Your task to perform on an android device: add a label to a message in the gmail app Image 0: 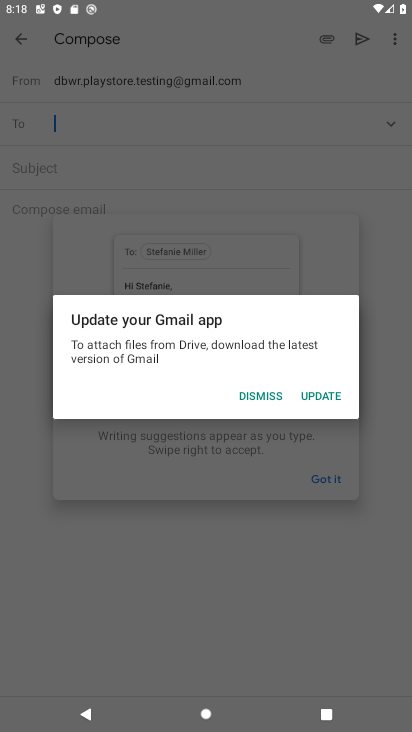
Step 0: press back button
Your task to perform on an android device: add a label to a message in the gmail app Image 1: 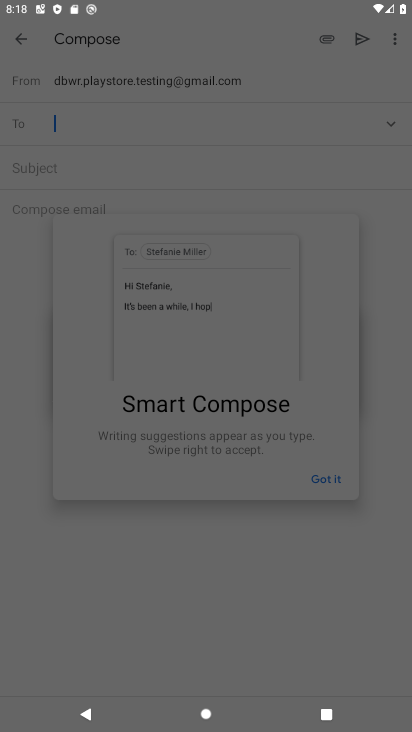
Step 1: press back button
Your task to perform on an android device: add a label to a message in the gmail app Image 2: 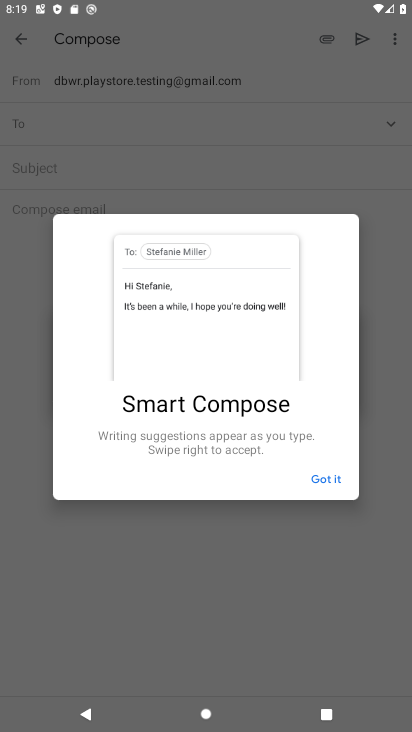
Step 2: press home button
Your task to perform on an android device: add a label to a message in the gmail app Image 3: 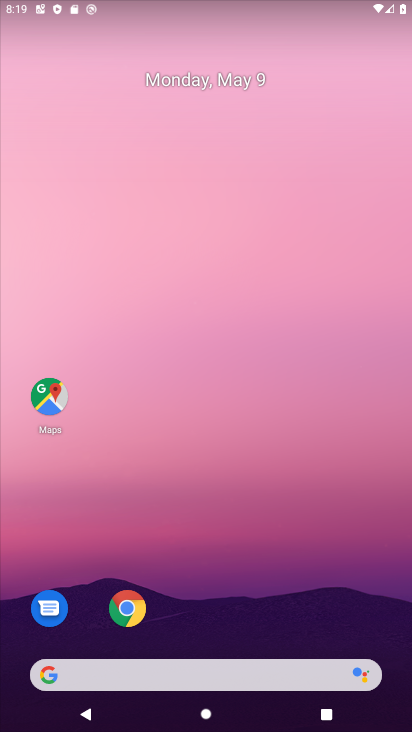
Step 3: drag from (192, 652) to (346, 0)
Your task to perform on an android device: add a label to a message in the gmail app Image 4: 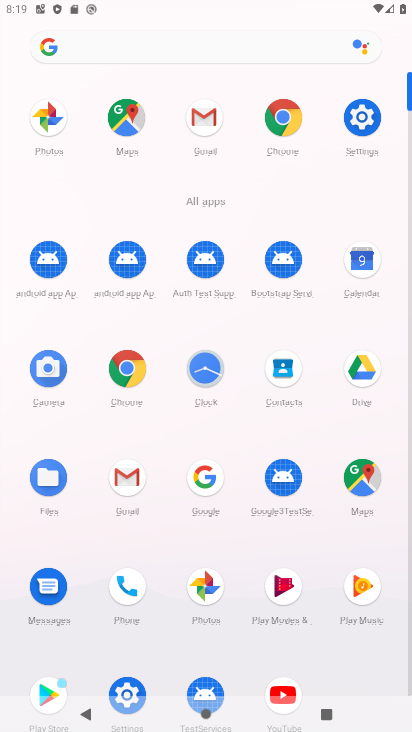
Step 4: click (119, 459)
Your task to perform on an android device: add a label to a message in the gmail app Image 5: 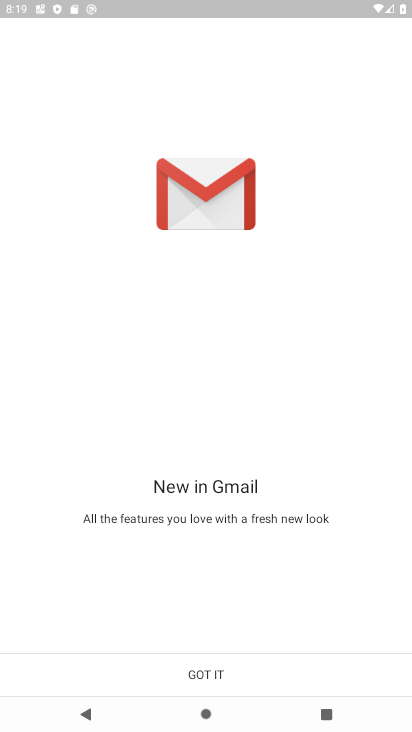
Step 5: click (230, 684)
Your task to perform on an android device: add a label to a message in the gmail app Image 6: 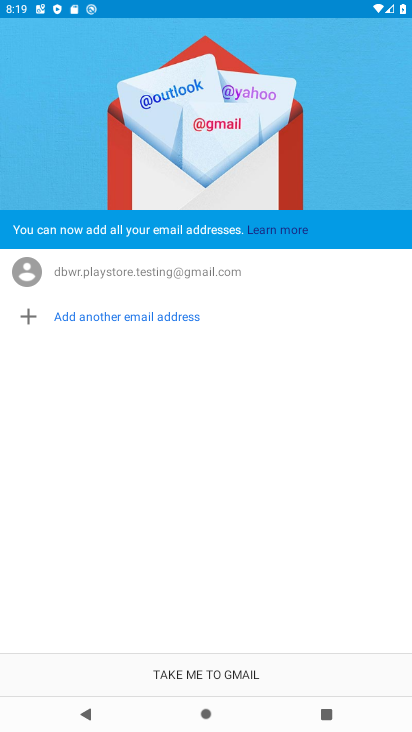
Step 6: click (233, 667)
Your task to perform on an android device: add a label to a message in the gmail app Image 7: 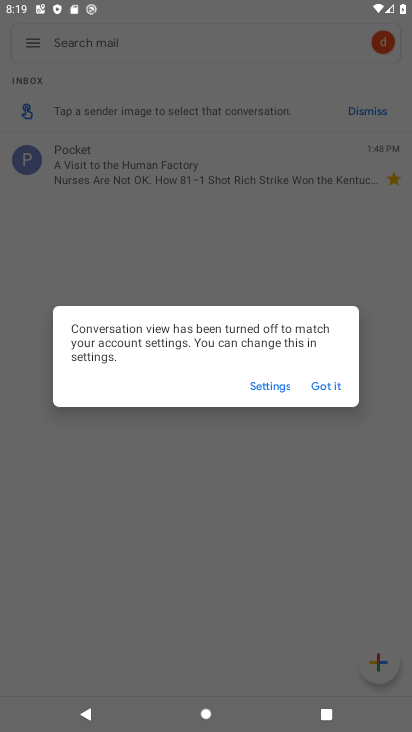
Step 7: click (334, 391)
Your task to perform on an android device: add a label to a message in the gmail app Image 8: 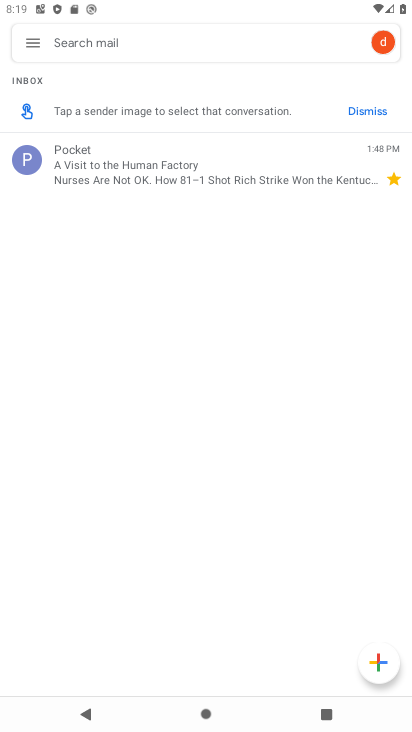
Step 8: click (194, 166)
Your task to perform on an android device: add a label to a message in the gmail app Image 9: 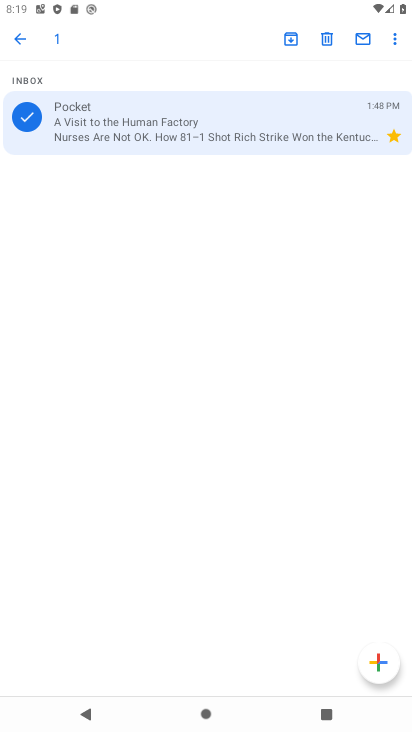
Step 9: click (394, 37)
Your task to perform on an android device: add a label to a message in the gmail app Image 10: 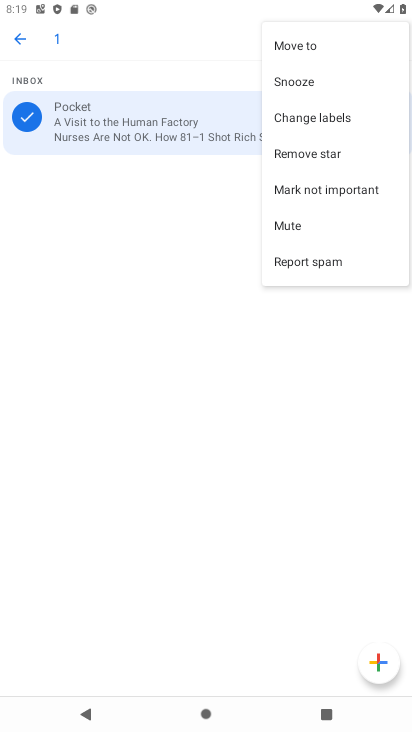
Step 10: click (345, 116)
Your task to perform on an android device: add a label to a message in the gmail app Image 11: 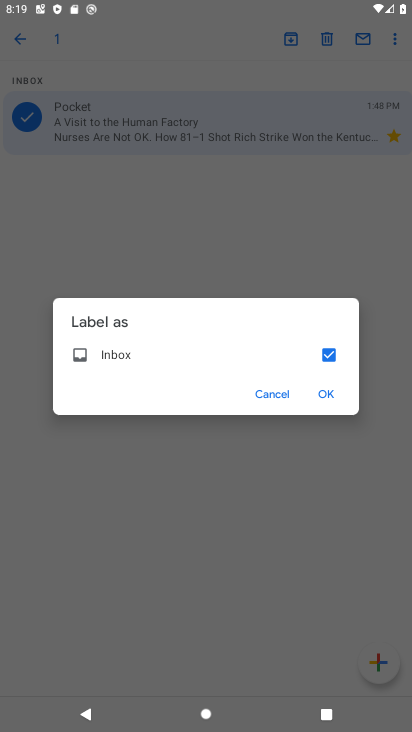
Step 11: click (332, 349)
Your task to perform on an android device: add a label to a message in the gmail app Image 12: 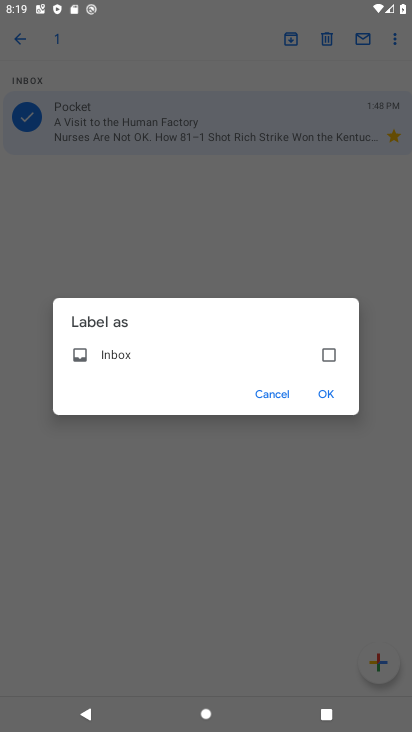
Step 12: click (328, 397)
Your task to perform on an android device: add a label to a message in the gmail app Image 13: 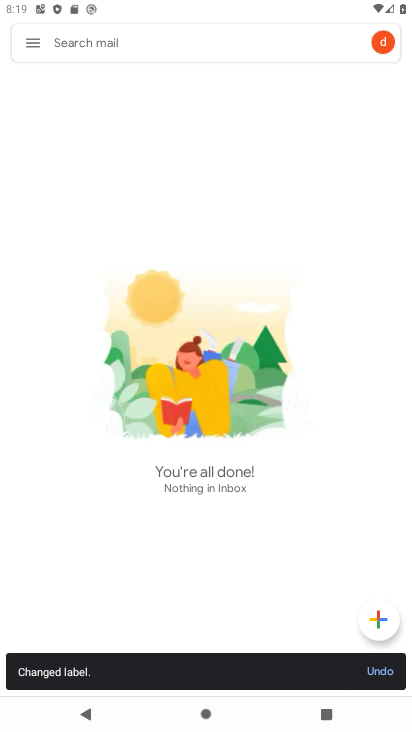
Step 13: task complete